Your task to perform on an android device: turn on priority inbox in the gmail app Image 0: 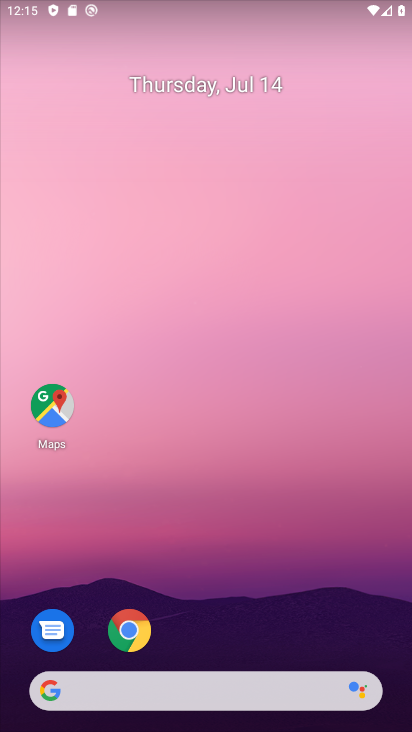
Step 0: drag from (263, 610) to (266, 187)
Your task to perform on an android device: turn on priority inbox in the gmail app Image 1: 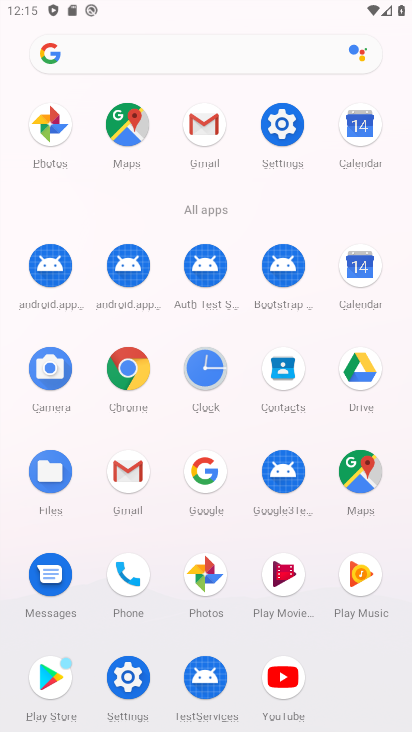
Step 1: click (199, 130)
Your task to perform on an android device: turn on priority inbox in the gmail app Image 2: 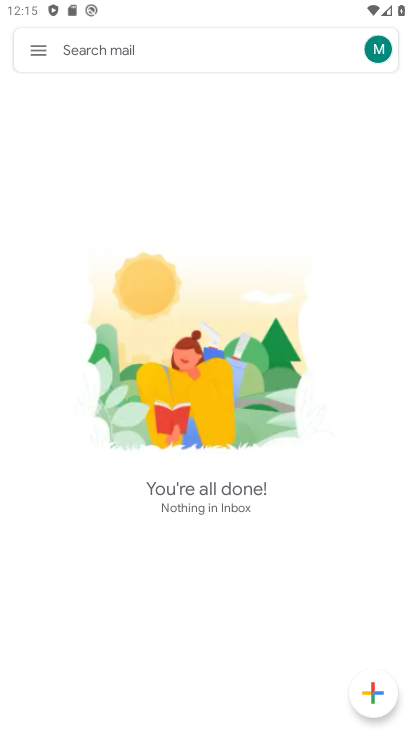
Step 2: click (37, 52)
Your task to perform on an android device: turn on priority inbox in the gmail app Image 3: 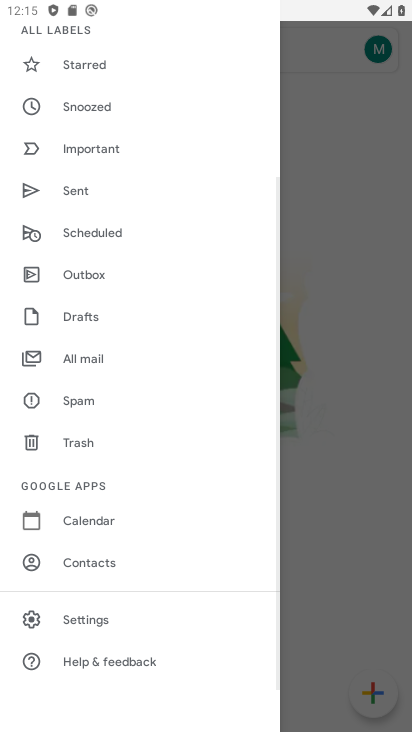
Step 3: click (97, 613)
Your task to perform on an android device: turn on priority inbox in the gmail app Image 4: 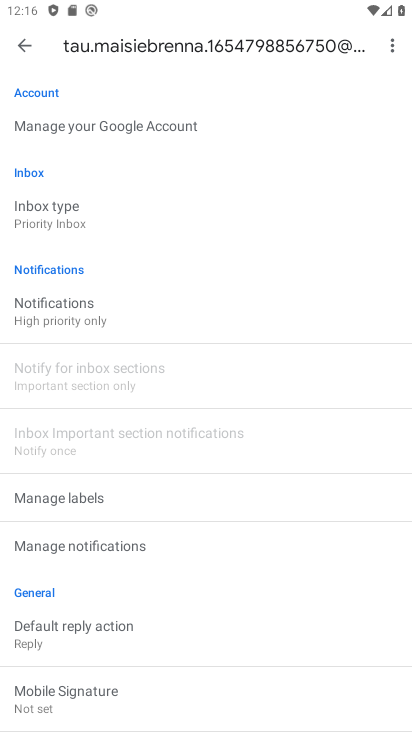
Step 4: task complete